Your task to perform on an android device: Open Google Image 0: 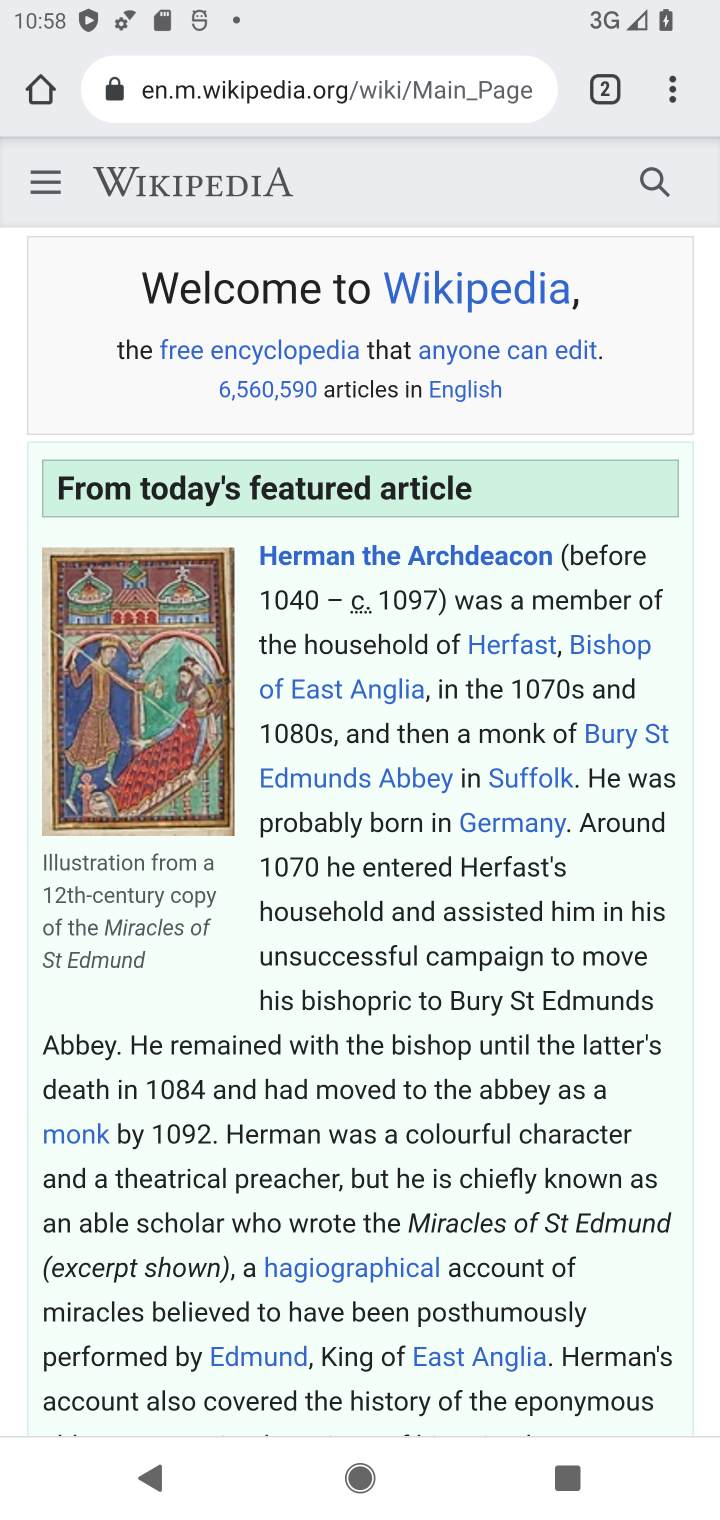
Step 0: press home button
Your task to perform on an android device: Open Google Image 1: 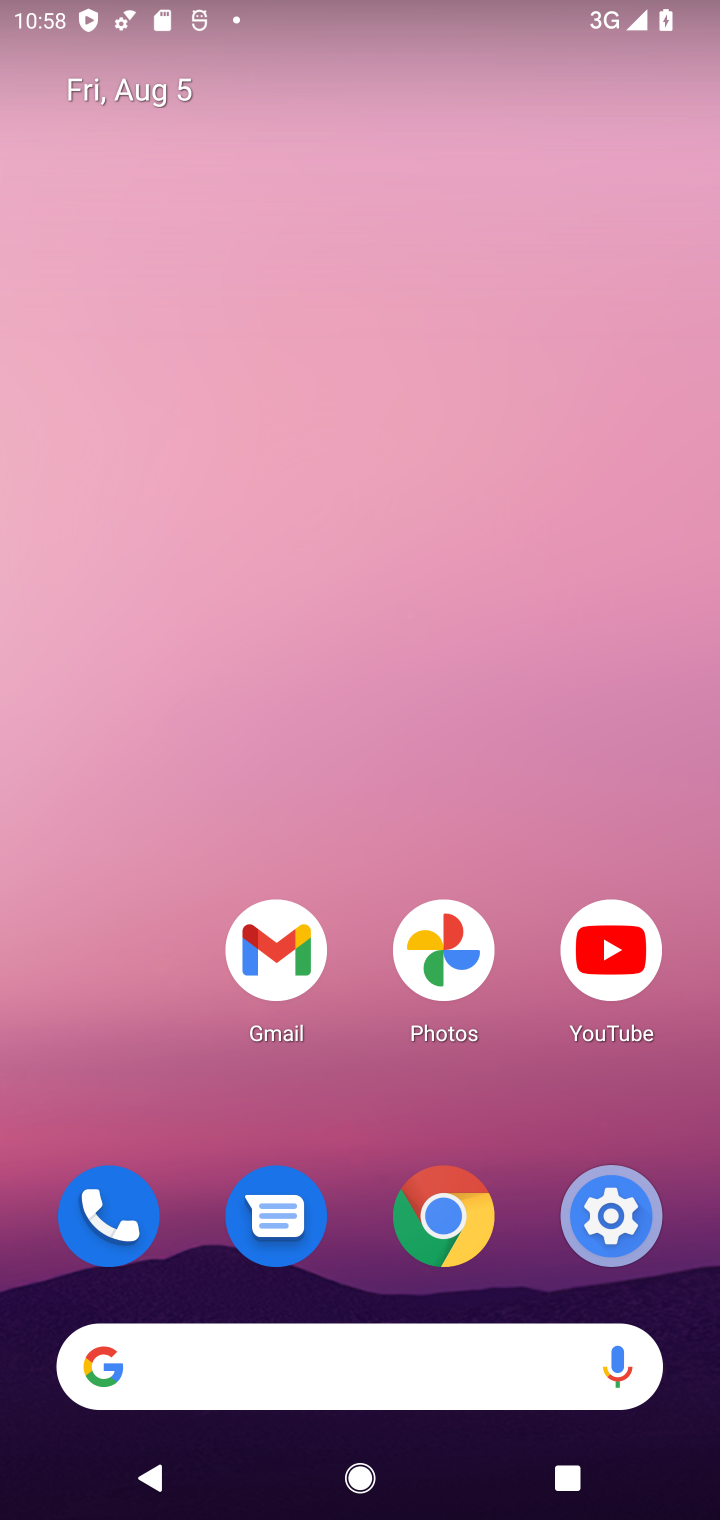
Step 1: drag from (285, 1335) to (423, 23)
Your task to perform on an android device: Open Google Image 2: 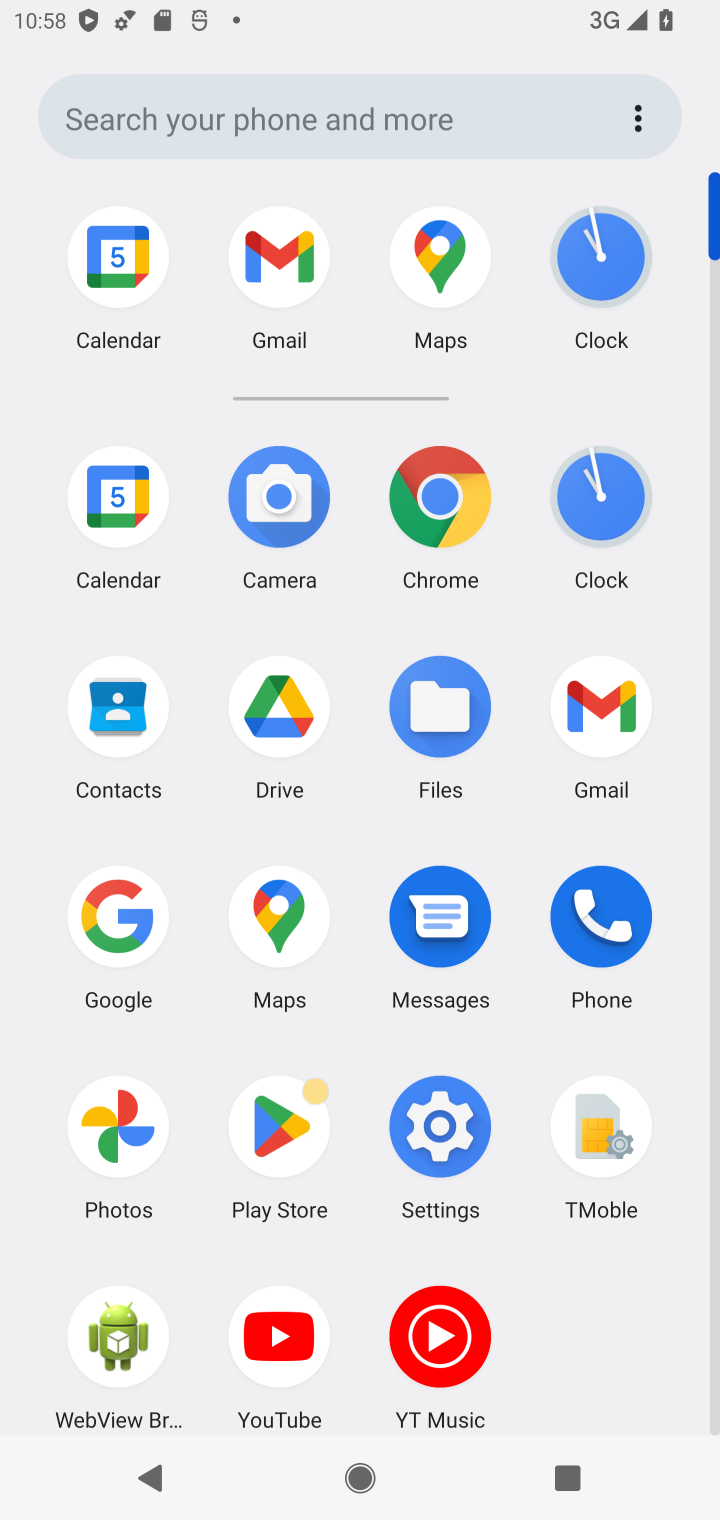
Step 2: click (448, 464)
Your task to perform on an android device: Open Google Image 3: 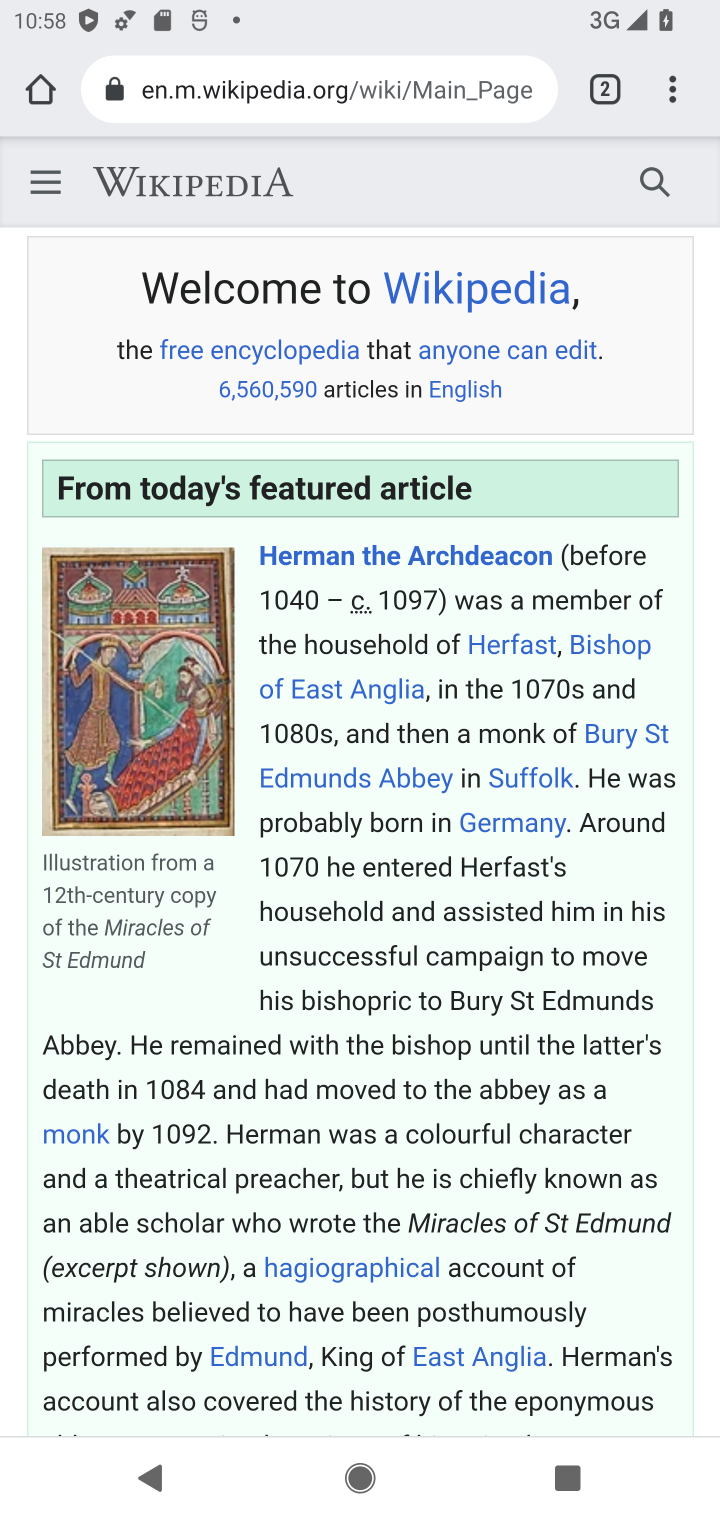
Step 3: click (665, 85)
Your task to perform on an android device: Open Google Image 4: 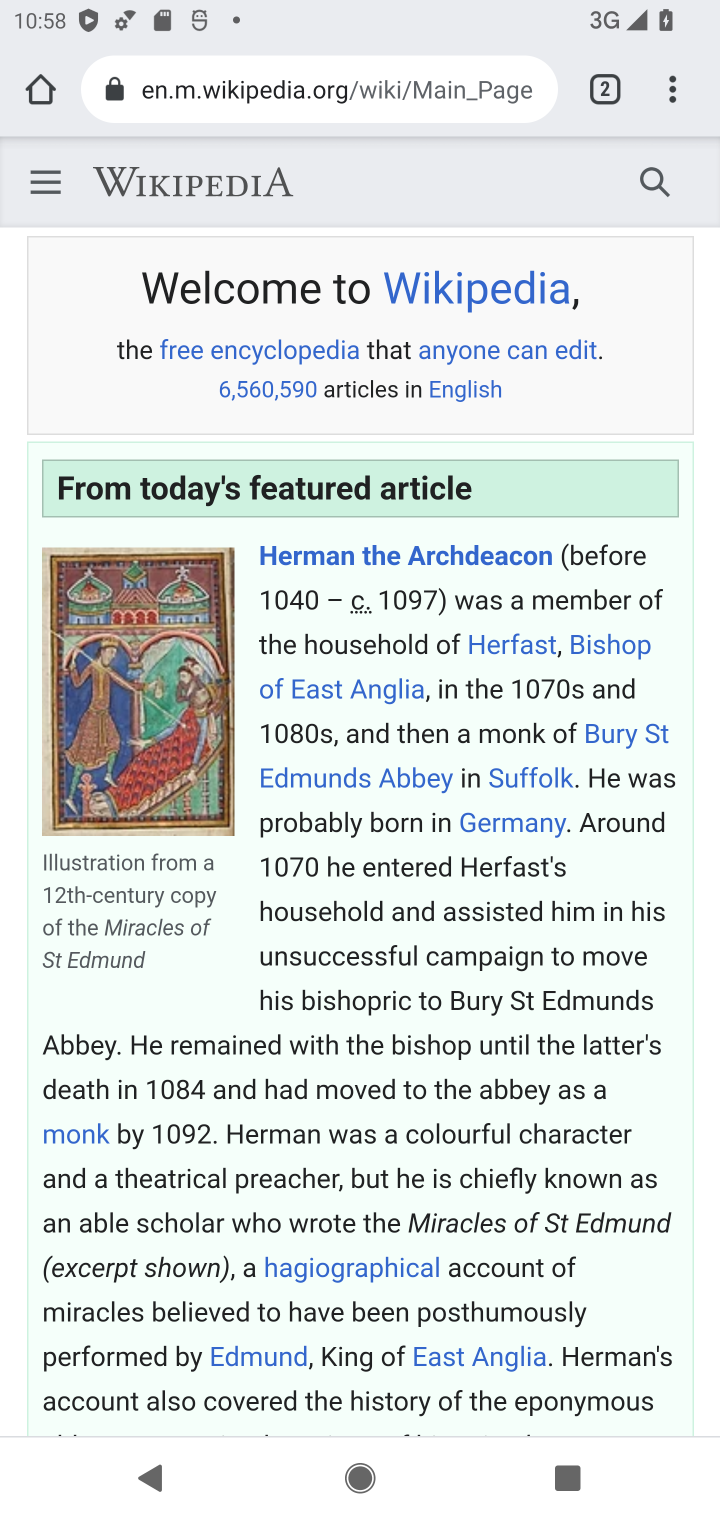
Step 4: task complete